Your task to perform on an android device: remove spam from my inbox in the gmail app Image 0: 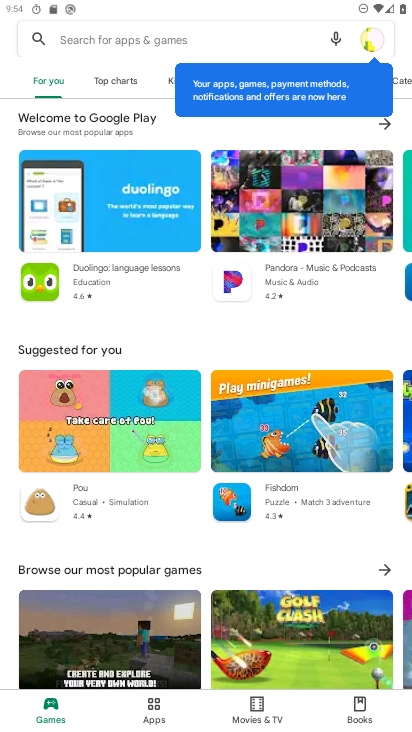
Step 0: press home button
Your task to perform on an android device: remove spam from my inbox in the gmail app Image 1: 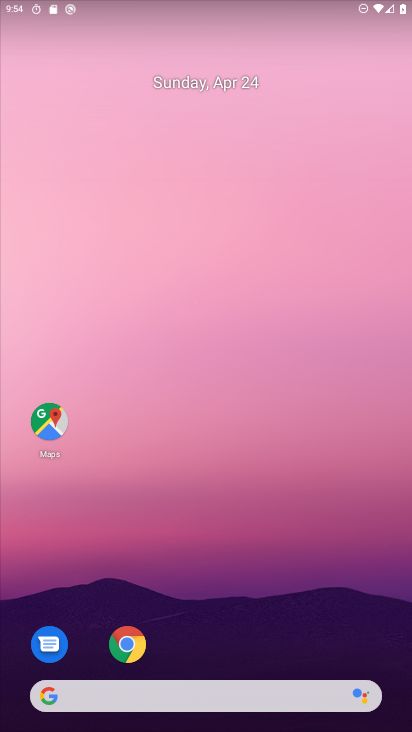
Step 1: drag from (214, 677) to (133, 35)
Your task to perform on an android device: remove spam from my inbox in the gmail app Image 2: 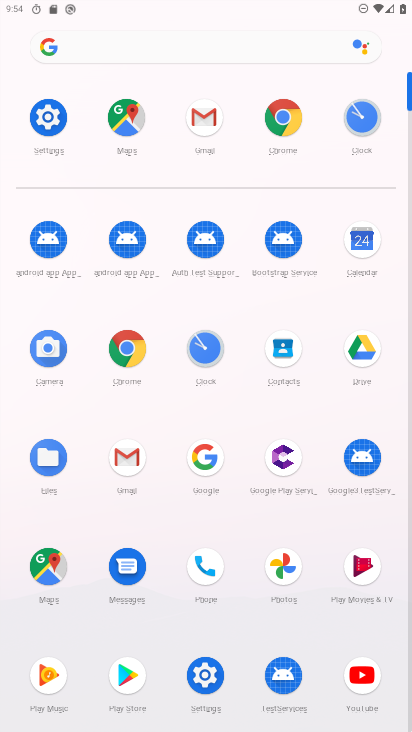
Step 2: click (123, 470)
Your task to perform on an android device: remove spam from my inbox in the gmail app Image 3: 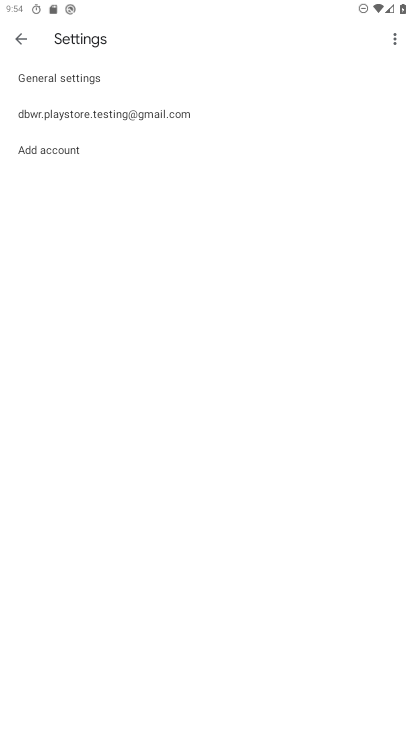
Step 3: click (27, 38)
Your task to perform on an android device: remove spam from my inbox in the gmail app Image 4: 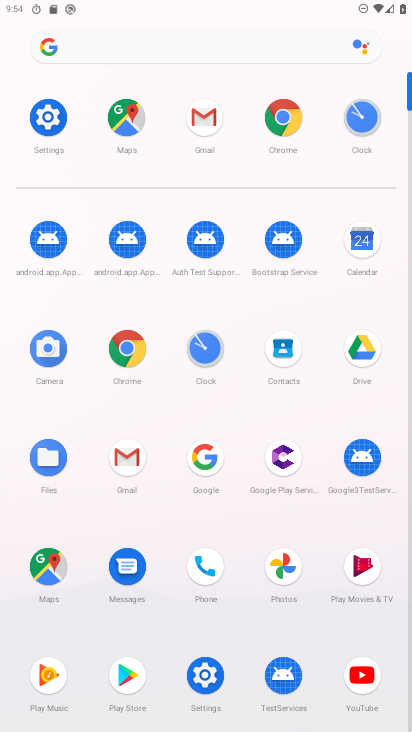
Step 4: click (135, 465)
Your task to perform on an android device: remove spam from my inbox in the gmail app Image 5: 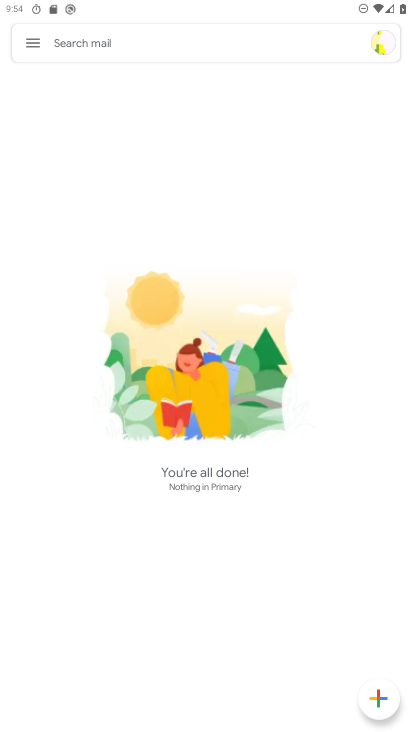
Step 5: task complete